Your task to perform on an android device: Open CNN.com Image 0: 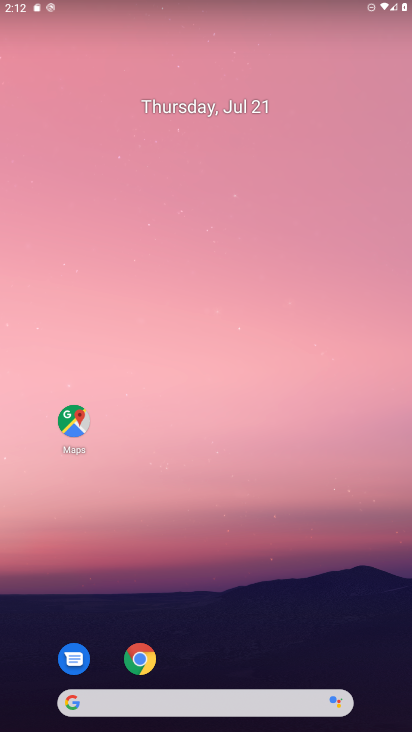
Step 0: click (224, 711)
Your task to perform on an android device: Open CNN.com Image 1: 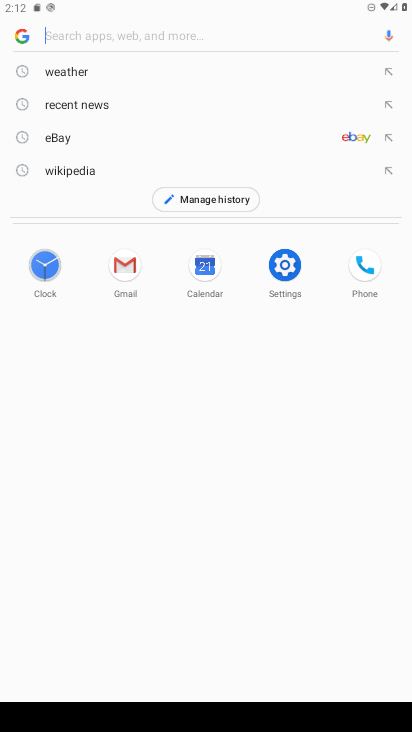
Step 1: type "CNN.com"
Your task to perform on an android device: Open CNN.com Image 2: 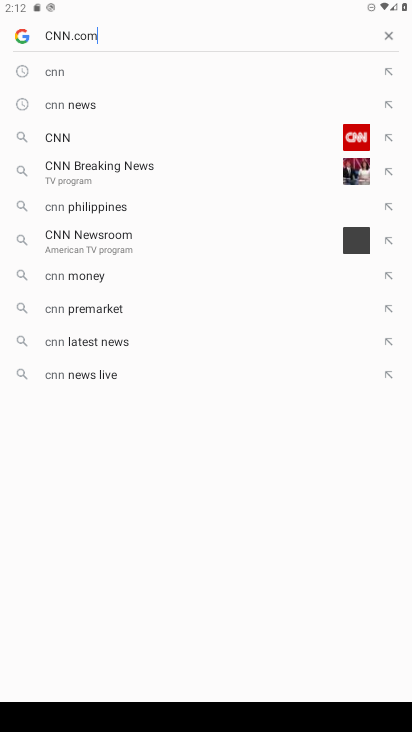
Step 2: type ""
Your task to perform on an android device: Open CNN.com Image 3: 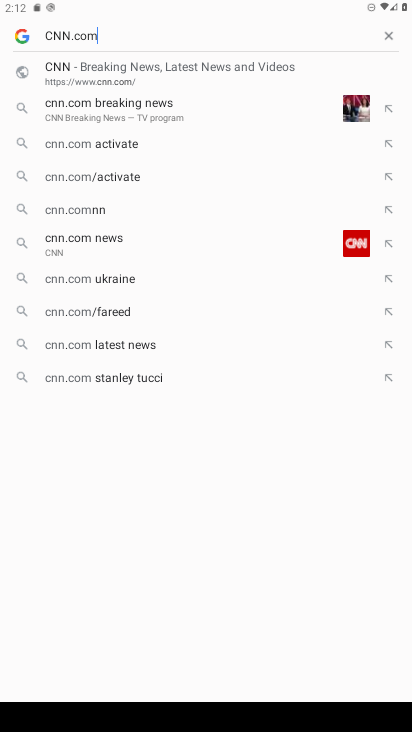
Step 3: click (102, 74)
Your task to perform on an android device: Open CNN.com Image 4: 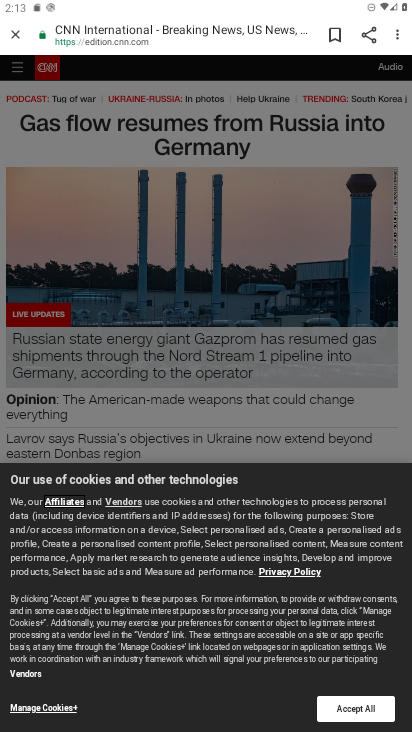
Step 4: task complete